Your task to perform on an android device: Go to display settings Image 0: 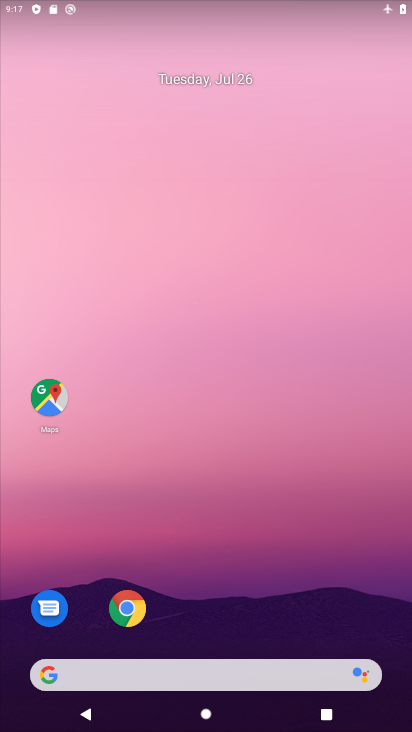
Step 0: drag from (205, 499) to (244, 129)
Your task to perform on an android device: Go to display settings Image 1: 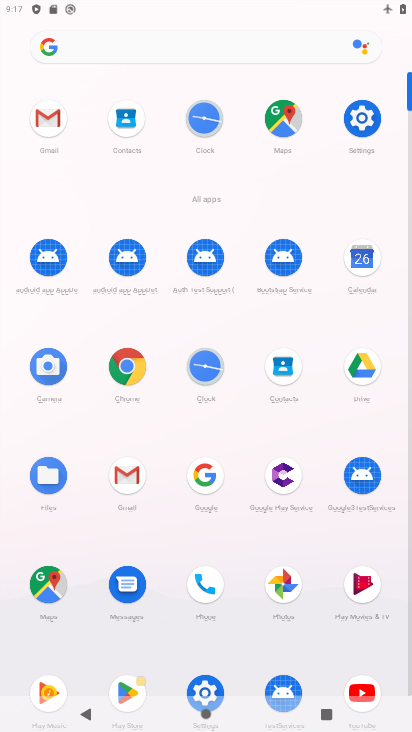
Step 1: click (360, 108)
Your task to perform on an android device: Go to display settings Image 2: 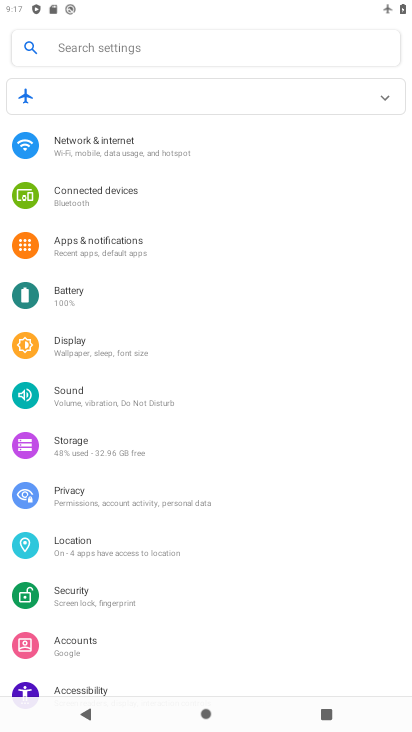
Step 2: click (102, 358)
Your task to perform on an android device: Go to display settings Image 3: 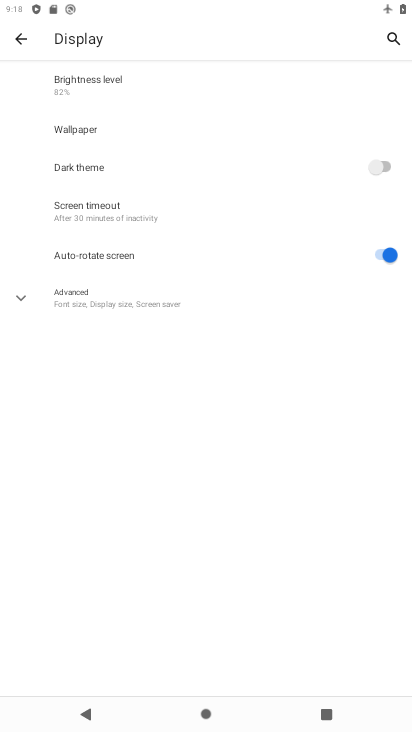
Step 3: task complete